Your task to perform on an android device: Open Google Maps Image 0: 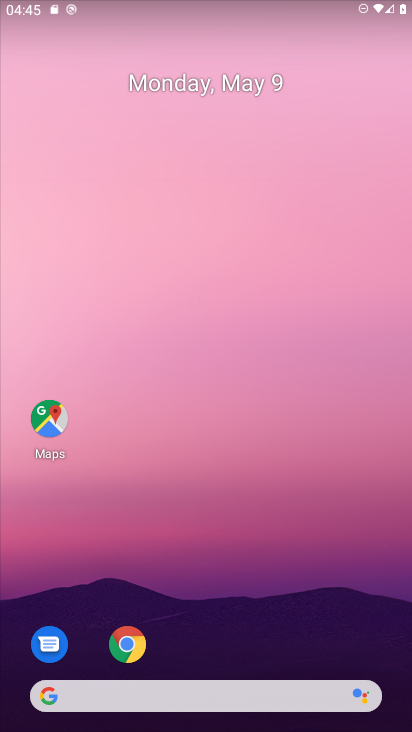
Step 0: click (42, 421)
Your task to perform on an android device: Open Google Maps Image 1: 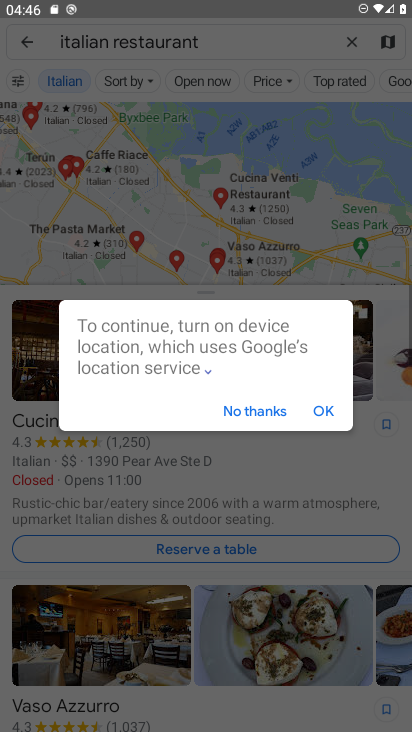
Step 1: click (322, 412)
Your task to perform on an android device: Open Google Maps Image 2: 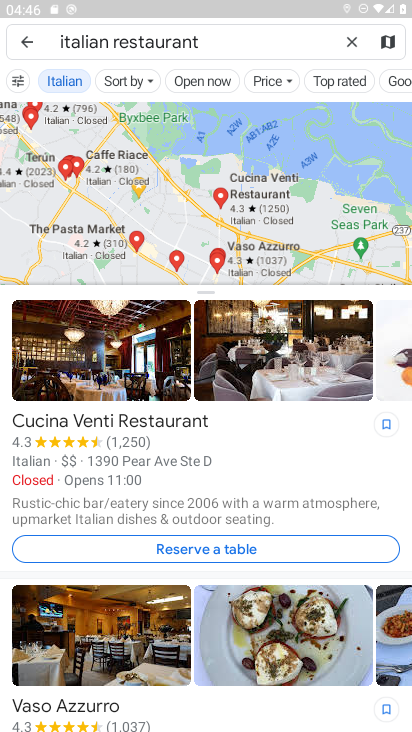
Step 2: task complete